Your task to perform on an android device: Do I have any events today? Image 0: 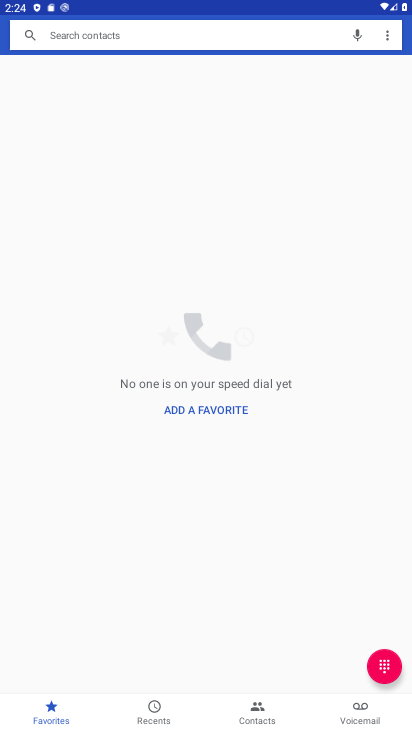
Step 0: press home button
Your task to perform on an android device: Do I have any events today? Image 1: 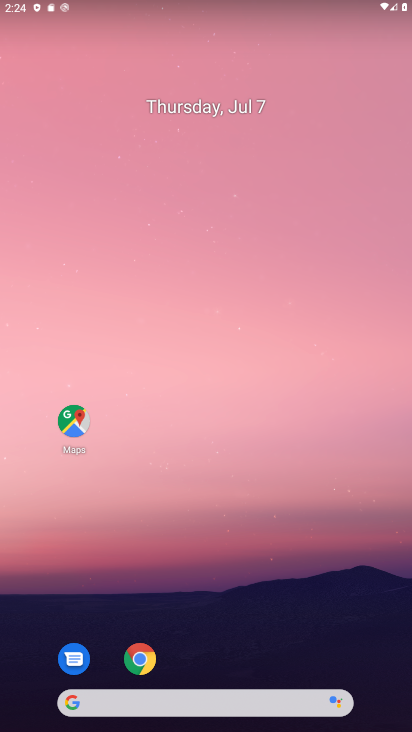
Step 1: drag from (232, 583) to (256, 7)
Your task to perform on an android device: Do I have any events today? Image 2: 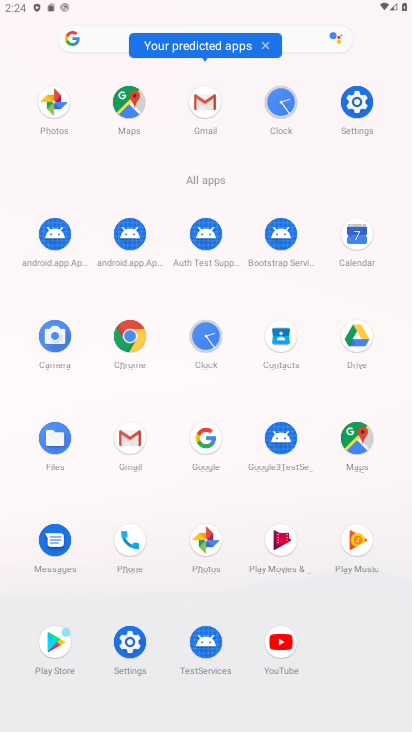
Step 2: click (347, 251)
Your task to perform on an android device: Do I have any events today? Image 3: 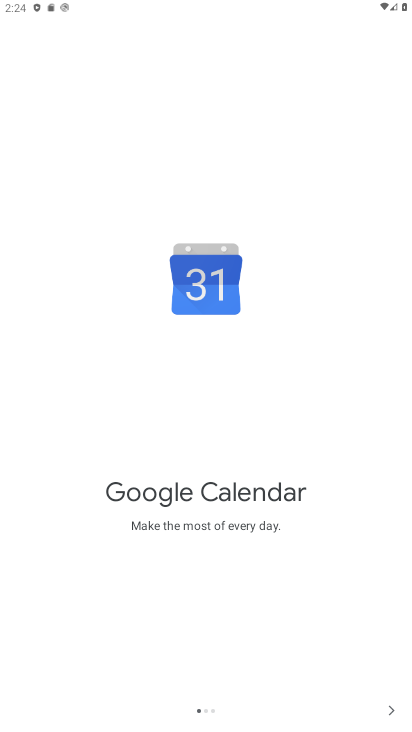
Step 3: click (391, 709)
Your task to perform on an android device: Do I have any events today? Image 4: 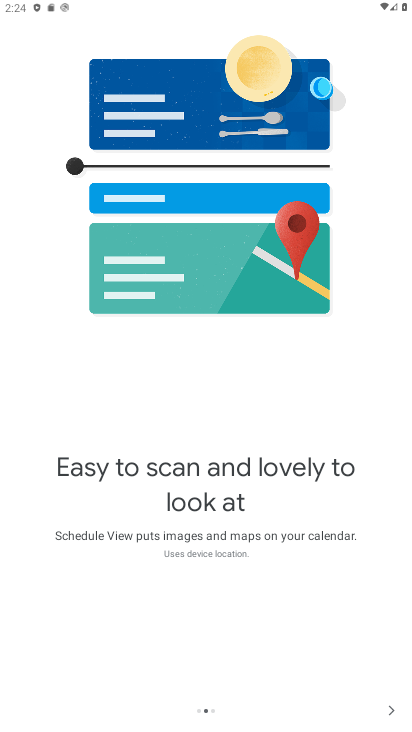
Step 4: click (391, 709)
Your task to perform on an android device: Do I have any events today? Image 5: 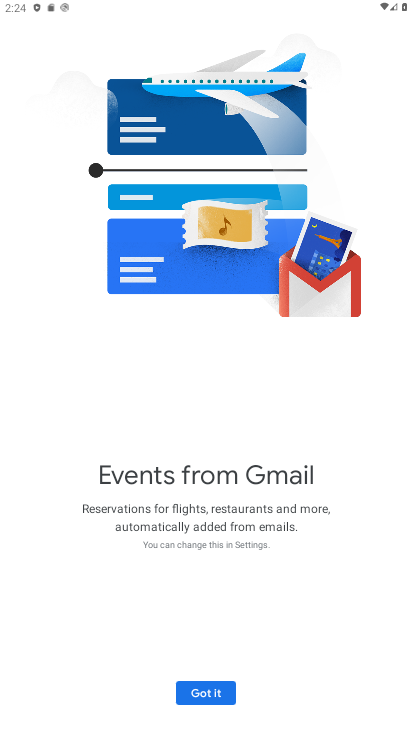
Step 5: click (215, 684)
Your task to perform on an android device: Do I have any events today? Image 6: 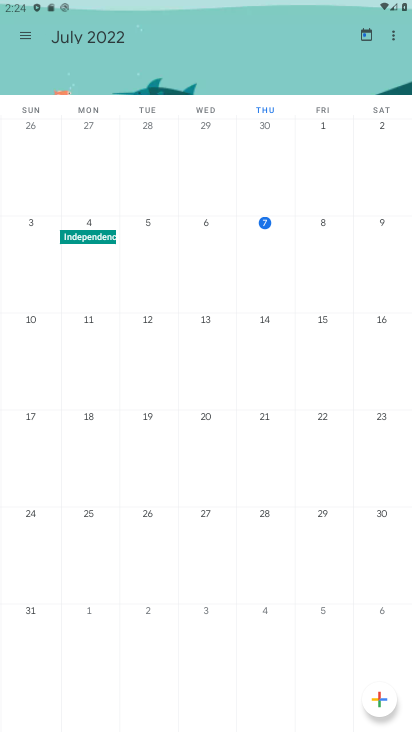
Step 6: click (18, 27)
Your task to perform on an android device: Do I have any events today? Image 7: 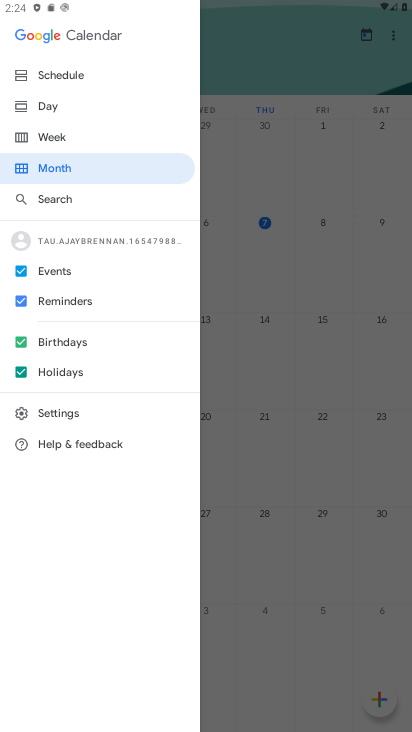
Step 7: click (59, 299)
Your task to perform on an android device: Do I have any events today? Image 8: 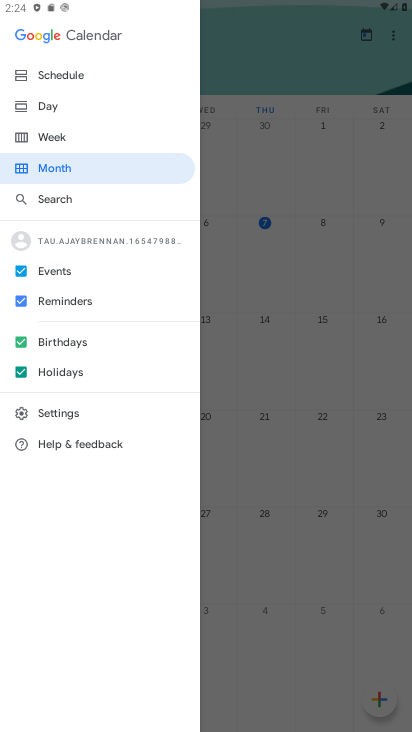
Step 8: click (54, 348)
Your task to perform on an android device: Do I have any events today? Image 9: 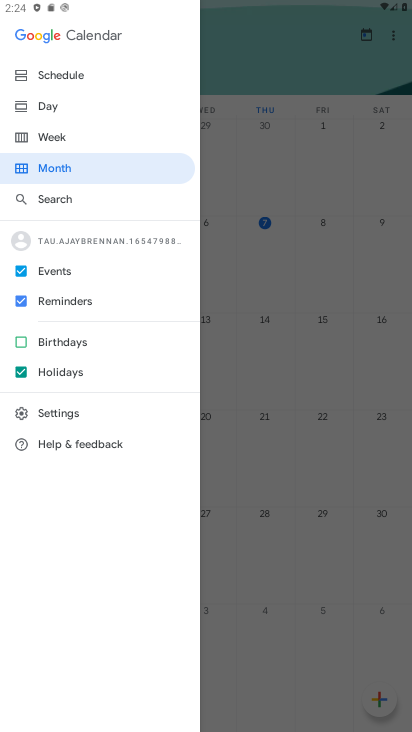
Step 9: click (47, 376)
Your task to perform on an android device: Do I have any events today? Image 10: 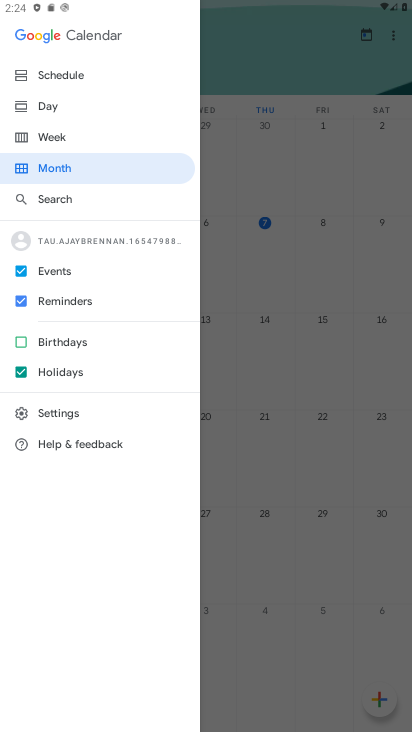
Step 10: click (65, 298)
Your task to perform on an android device: Do I have any events today? Image 11: 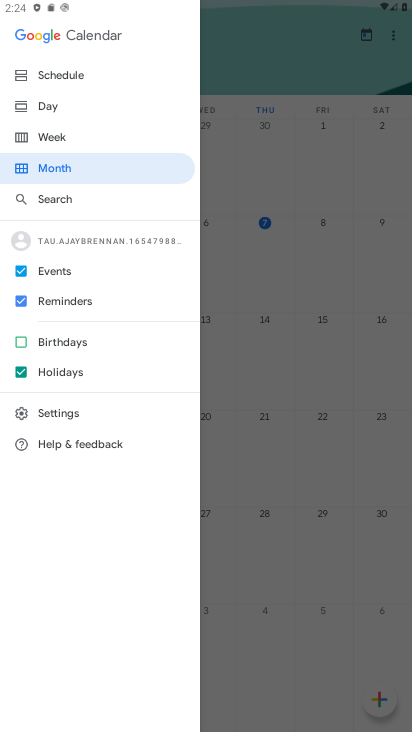
Step 11: click (38, 298)
Your task to perform on an android device: Do I have any events today? Image 12: 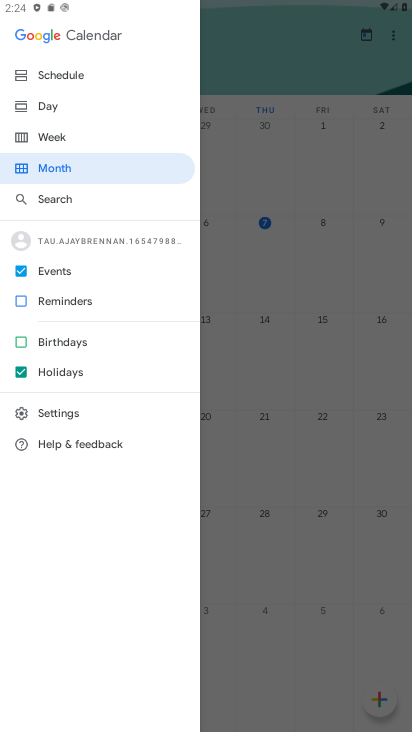
Step 12: click (28, 367)
Your task to perform on an android device: Do I have any events today? Image 13: 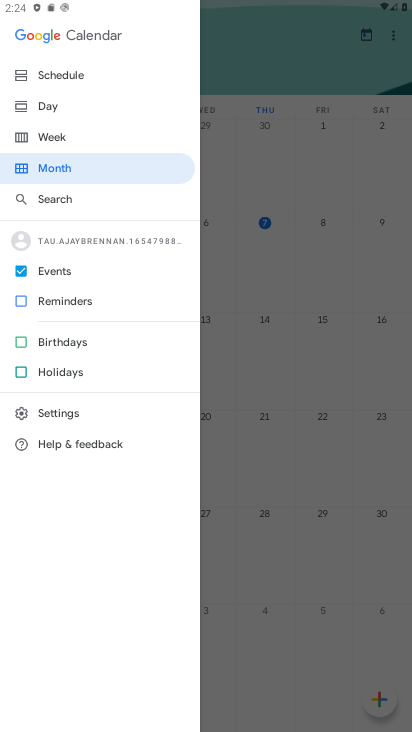
Step 13: click (53, 108)
Your task to perform on an android device: Do I have any events today? Image 14: 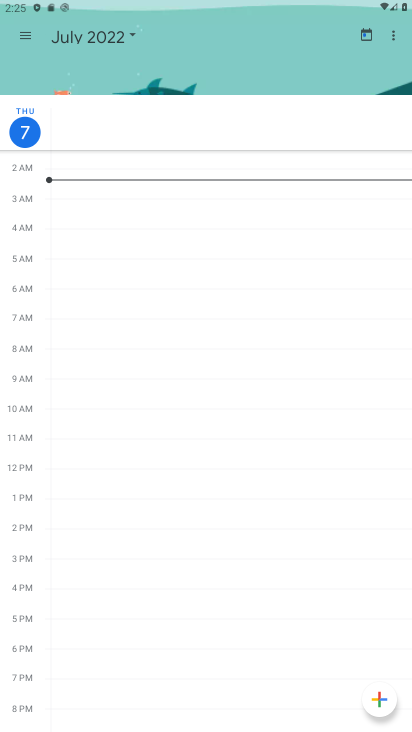
Step 14: task complete